Your task to perform on an android device: Show me the alarms in the clock app Image 0: 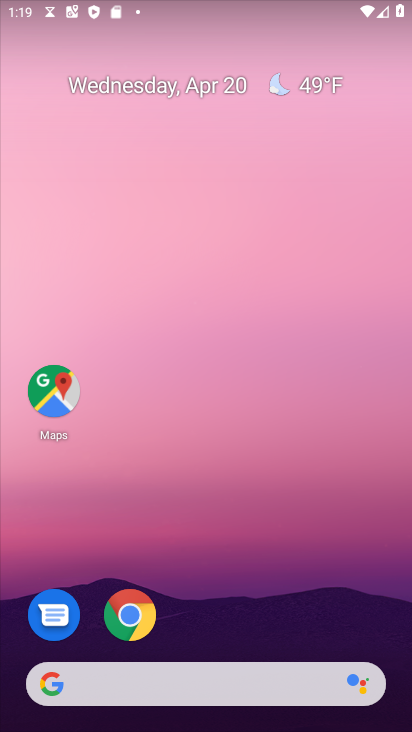
Step 0: drag from (42, 730) to (267, 324)
Your task to perform on an android device: Show me the alarms in the clock app Image 1: 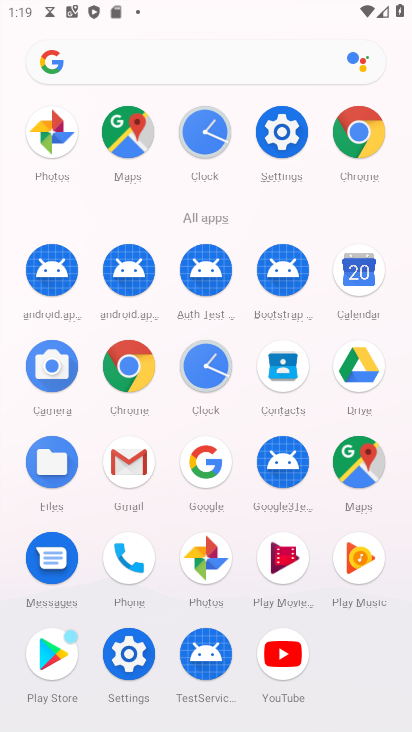
Step 1: click (194, 371)
Your task to perform on an android device: Show me the alarms in the clock app Image 2: 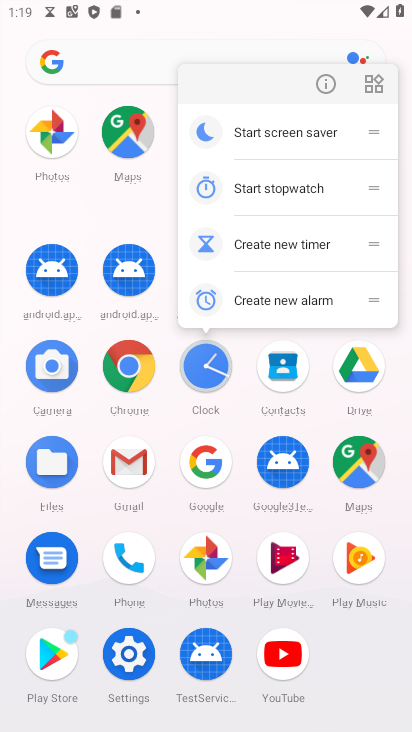
Step 2: click (208, 360)
Your task to perform on an android device: Show me the alarms in the clock app Image 3: 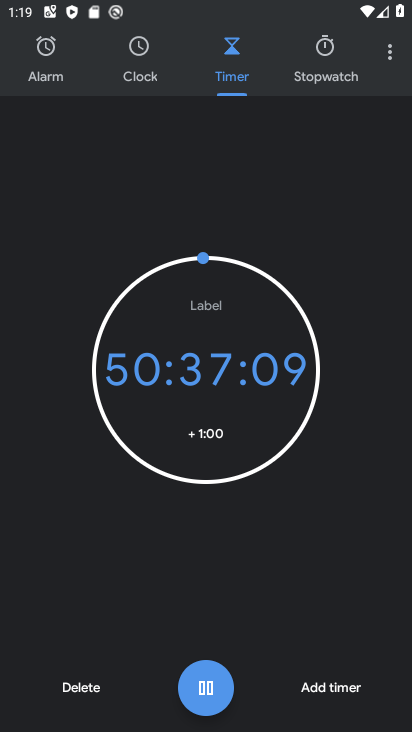
Step 3: click (46, 55)
Your task to perform on an android device: Show me the alarms in the clock app Image 4: 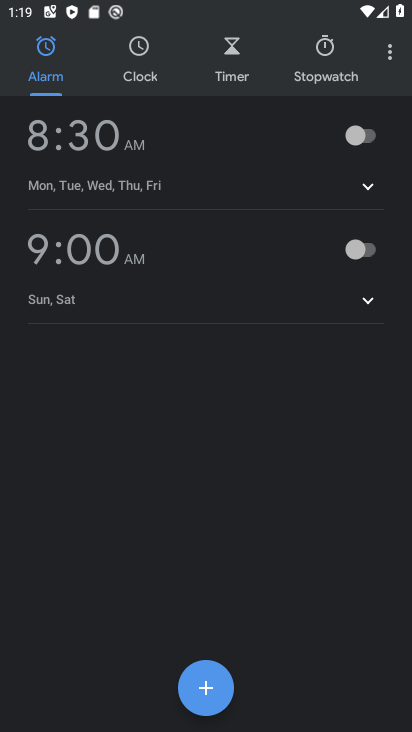
Step 4: task complete